Your task to perform on an android device: Search for a new water heater on Home Depot Image 0: 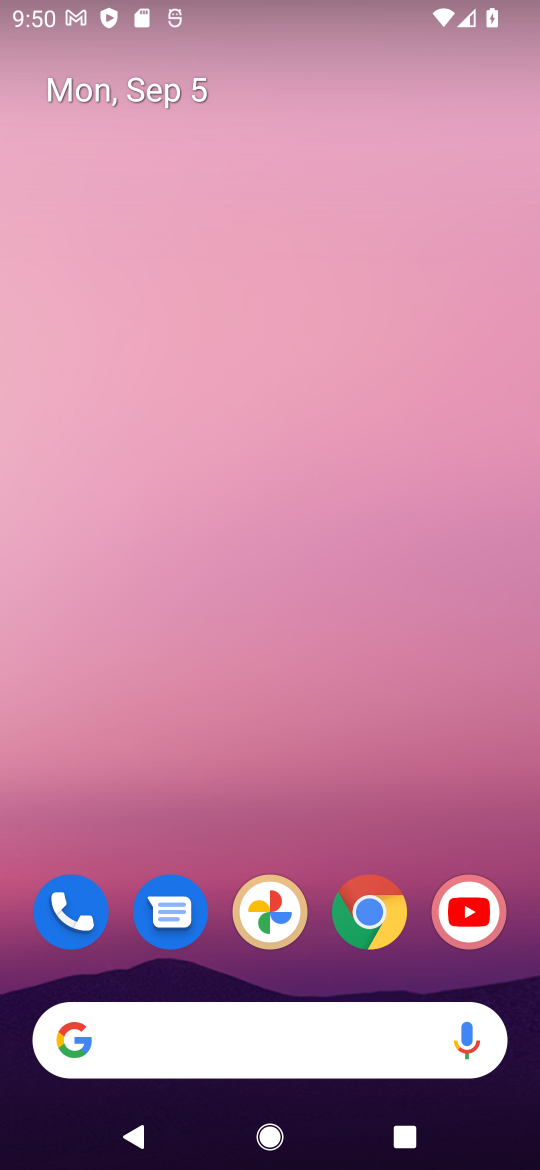
Step 0: click (373, 924)
Your task to perform on an android device: Search for a new water heater on Home Depot Image 1: 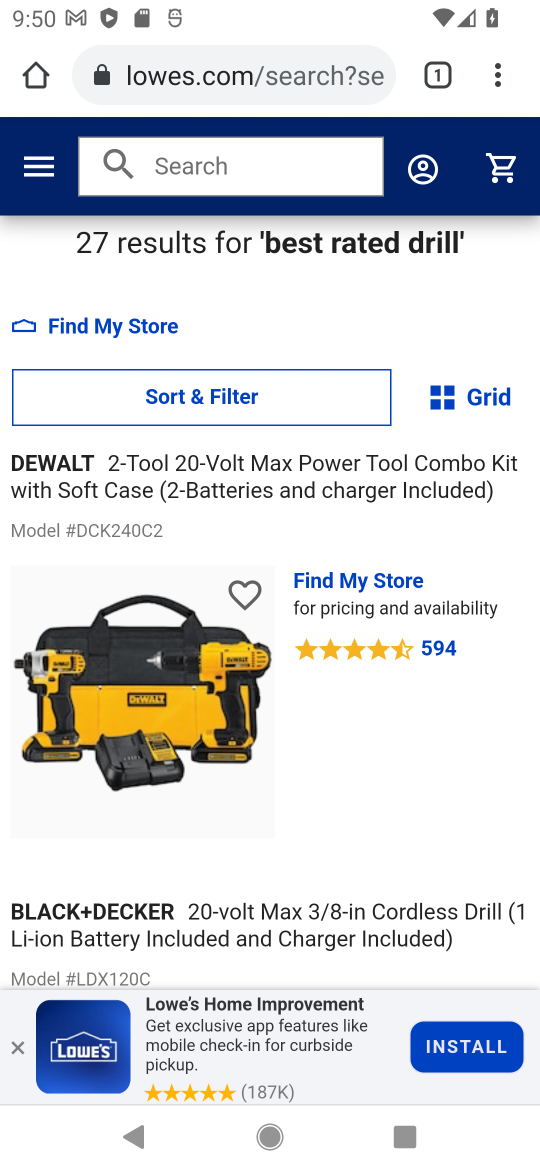
Step 1: click (224, 74)
Your task to perform on an android device: Search for a new water heater on Home Depot Image 2: 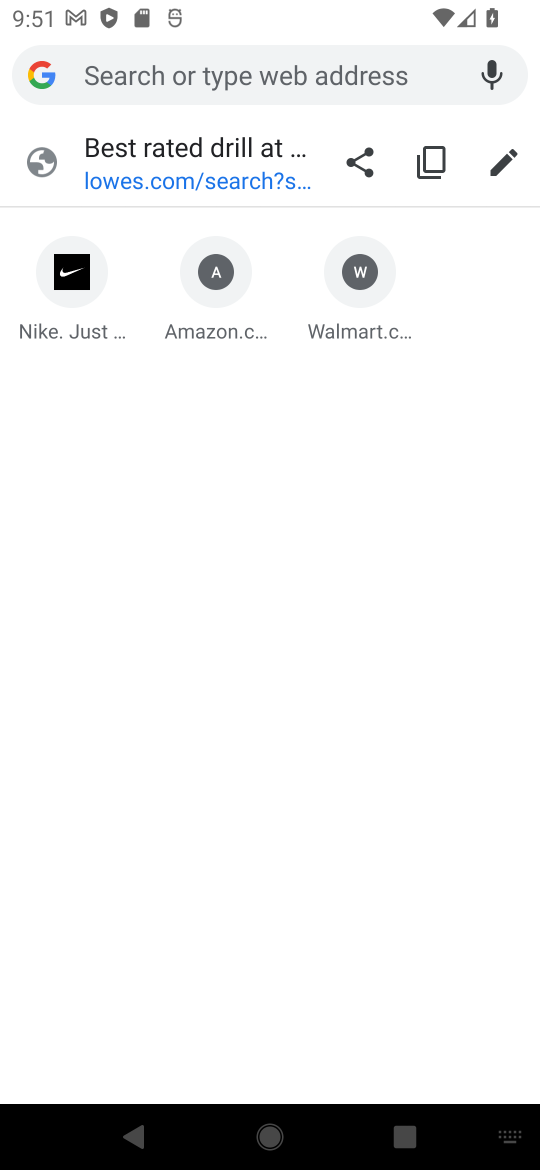
Step 2: type "Home Depot"
Your task to perform on an android device: Search for a new water heater on Home Depot Image 3: 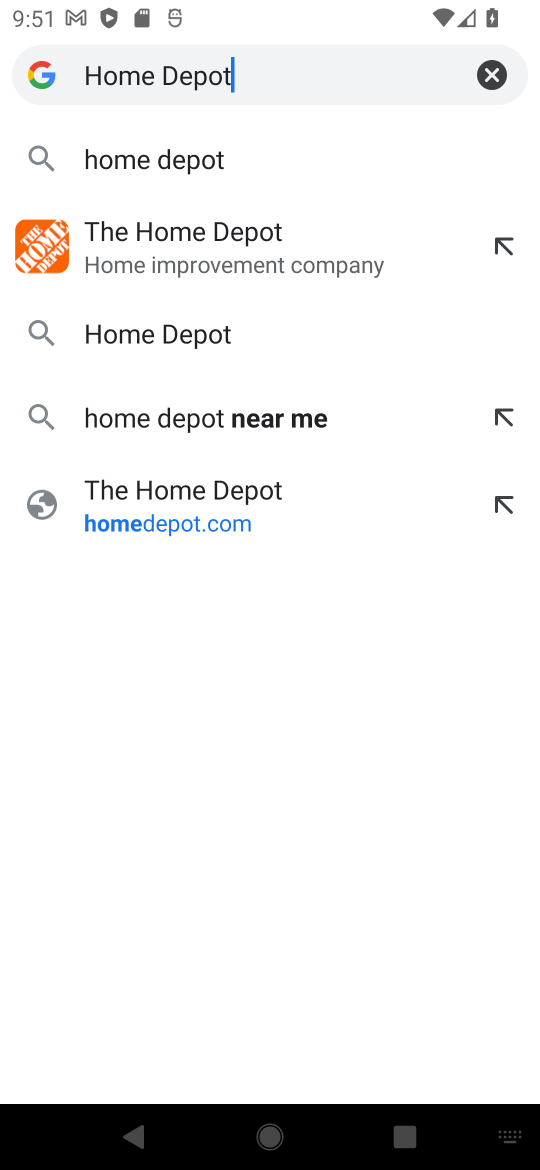
Step 3: click (104, 172)
Your task to perform on an android device: Search for a new water heater on Home Depot Image 4: 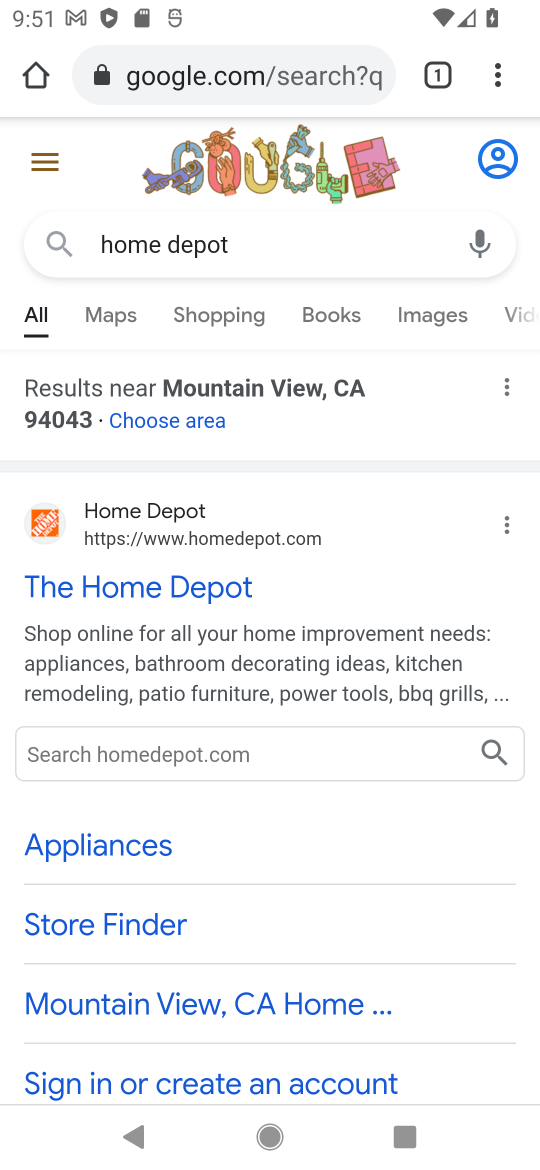
Step 4: click (137, 594)
Your task to perform on an android device: Search for a new water heater on Home Depot Image 5: 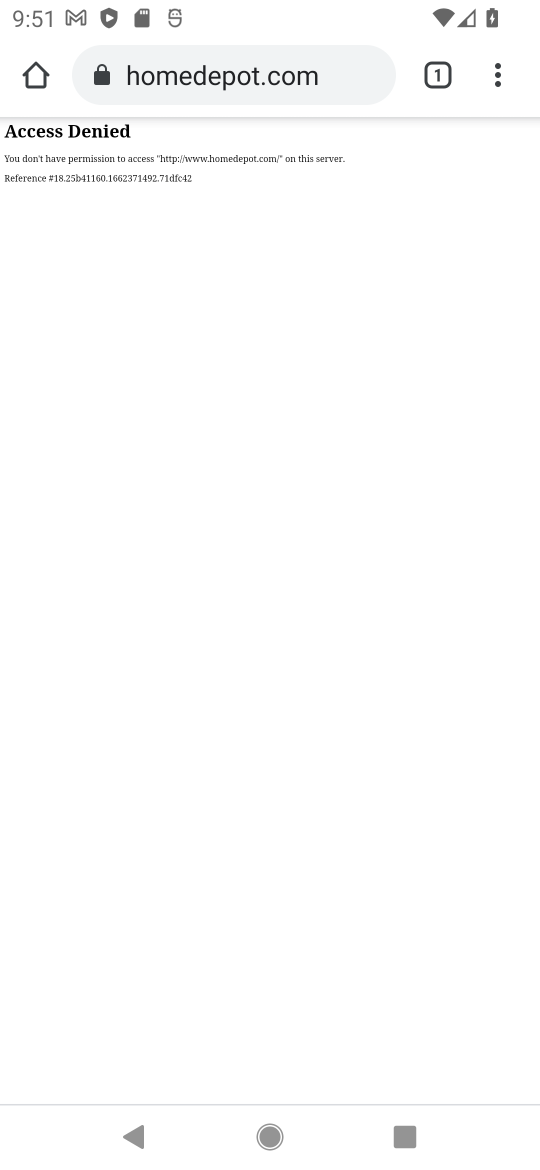
Step 5: task complete